Your task to perform on an android device: Find coffee shops on Maps Image 0: 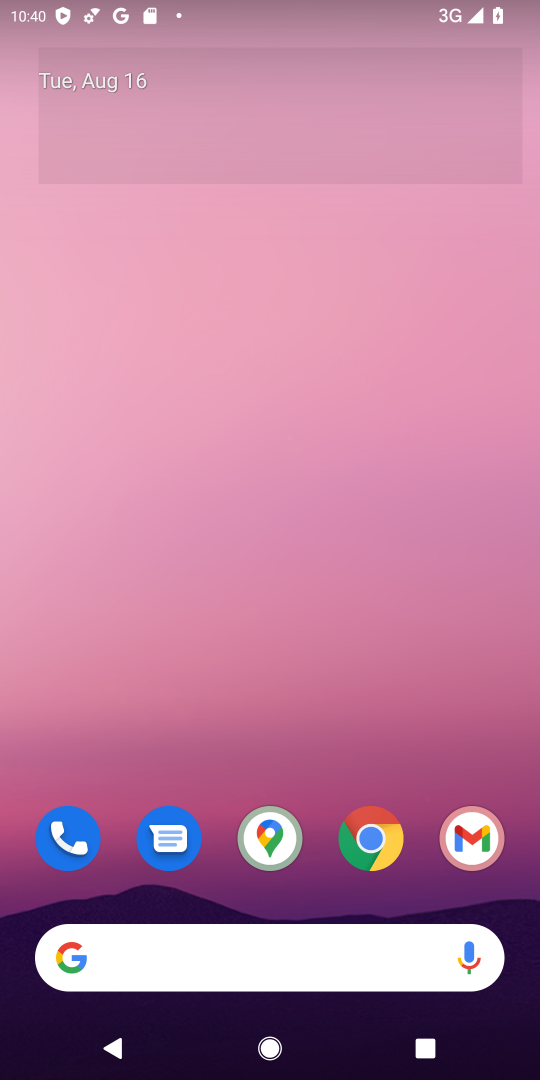
Step 0: press home button
Your task to perform on an android device: Find coffee shops on Maps Image 1: 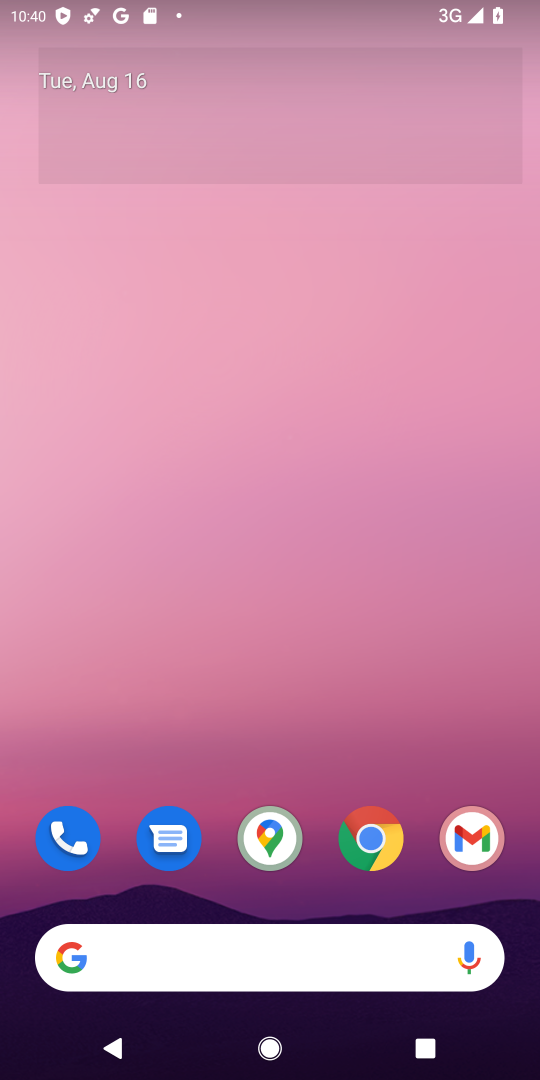
Step 1: click (267, 849)
Your task to perform on an android device: Find coffee shops on Maps Image 2: 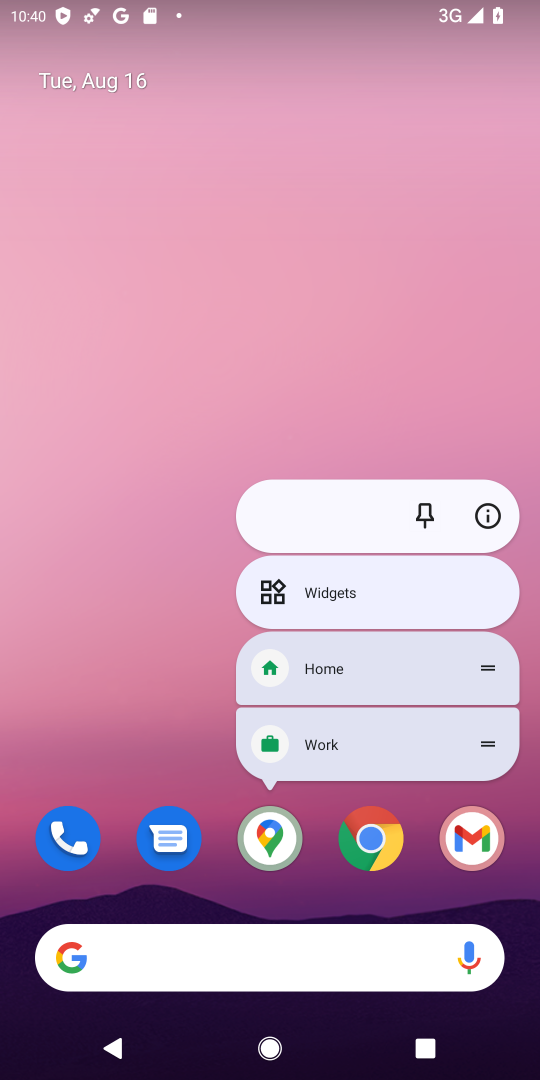
Step 2: click (267, 849)
Your task to perform on an android device: Find coffee shops on Maps Image 3: 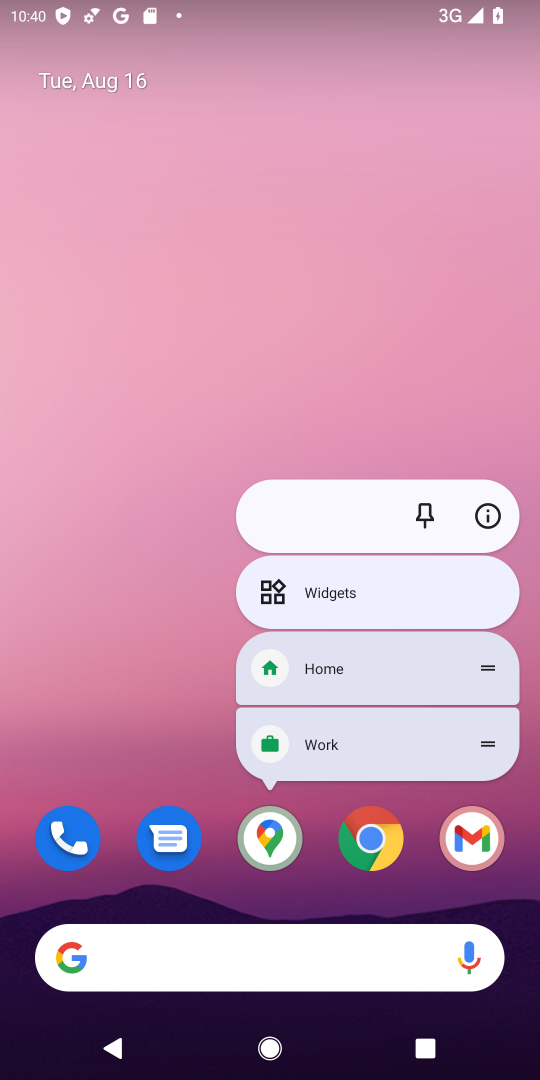
Step 3: click (267, 849)
Your task to perform on an android device: Find coffee shops on Maps Image 4: 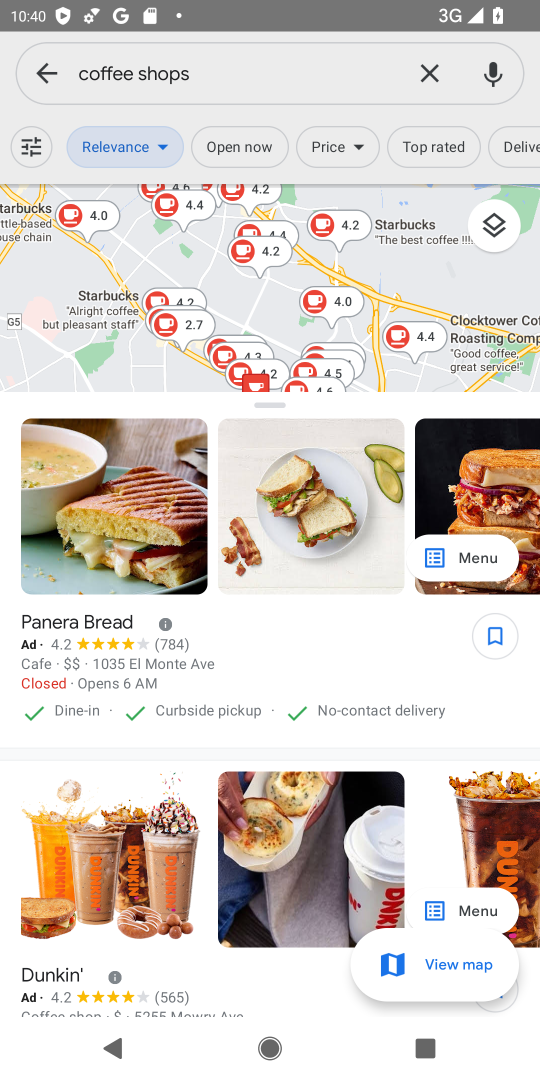
Step 4: task complete